Your task to perform on an android device: Go to Maps Image 0: 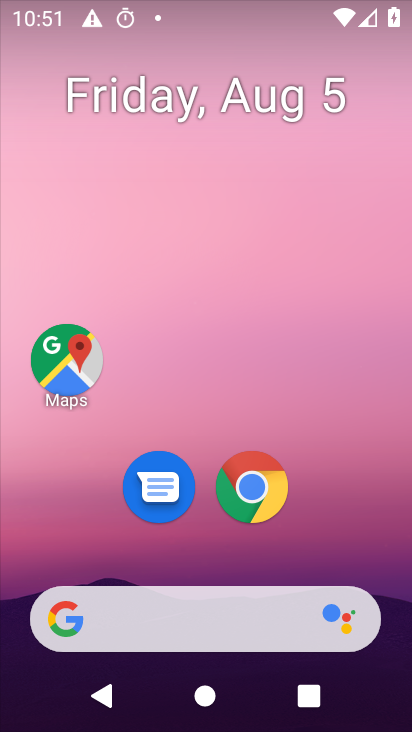
Step 0: click (46, 368)
Your task to perform on an android device: Go to Maps Image 1: 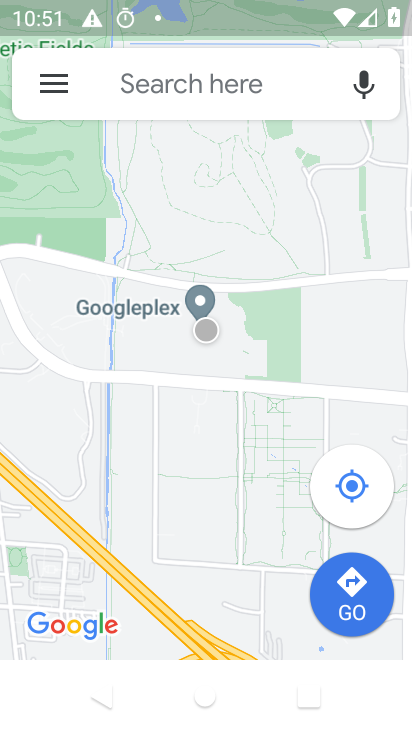
Step 1: task complete